Your task to perform on an android device: Open the stopwatch Image 0: 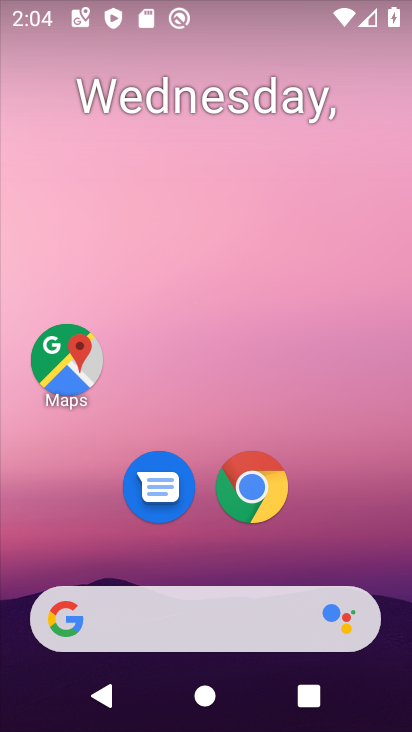
Step 0: click (304, 519)
Your task to perform on an android device: Open the stopwatch Image 1: 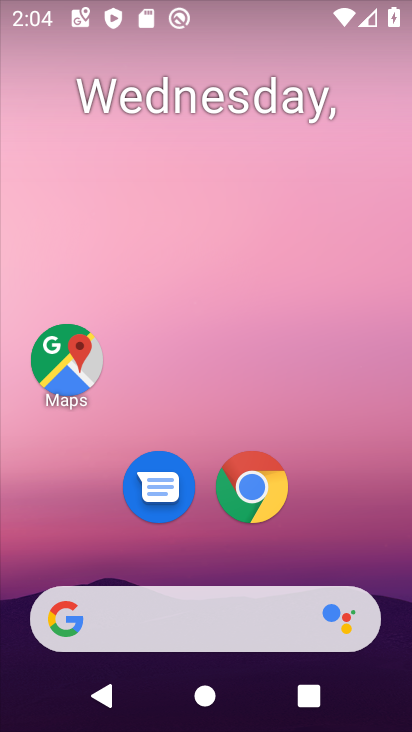
Step 1: drag from (304, 519) to (223, 176)
Your task to perform on an android device: Open the stopwatch Image 2: 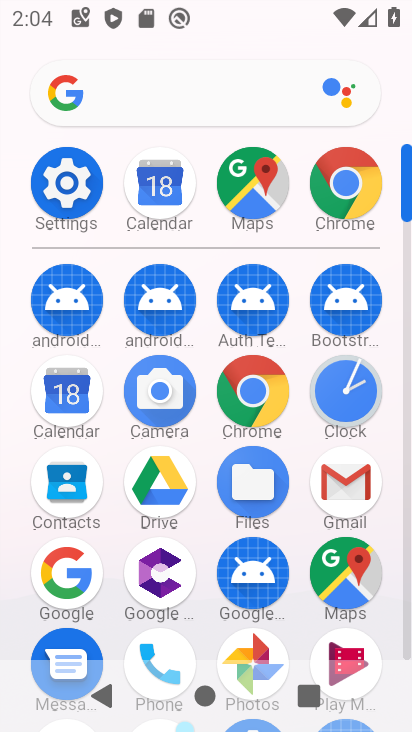
Step 2: click (346, 411)
Your task to perform on an android device: Open the stopwatch Image 3: 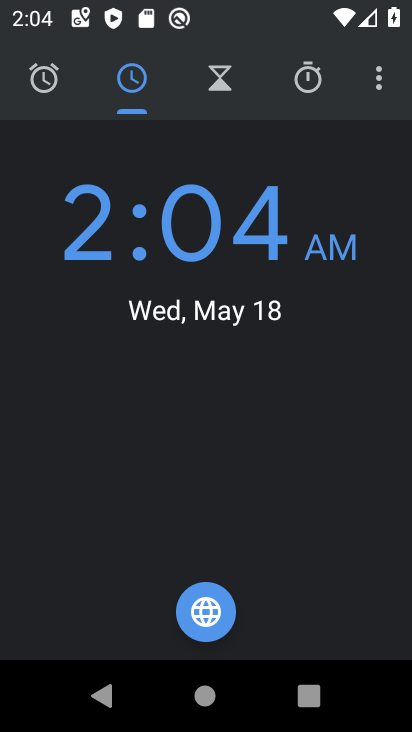
Step 3: click (305, 83)
Your task to perform on an android device: Open the stopwatch Image 4: 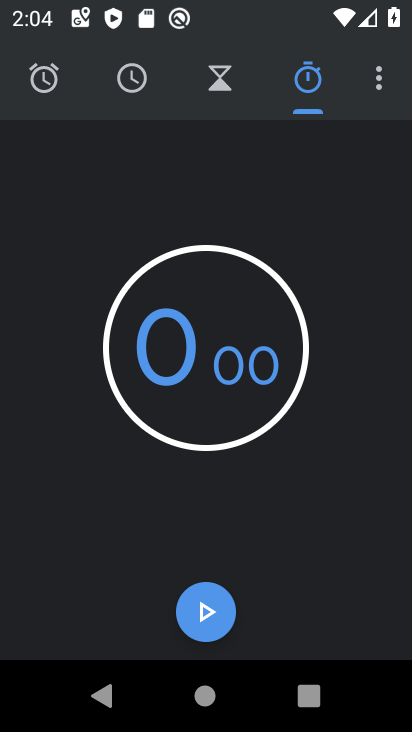
Step 4: task complete